Your task to perform on an android device: Open sound settings Image 0: 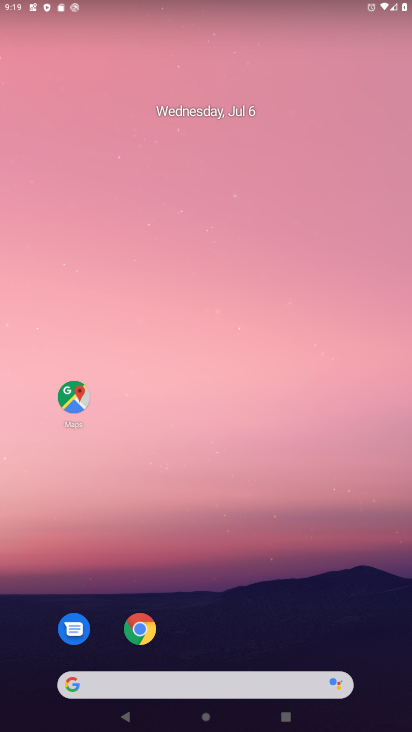
Step 0: drag from (70, 500) to (298, 30)
Your task to perform on an android device: Open sound settings Image 1: 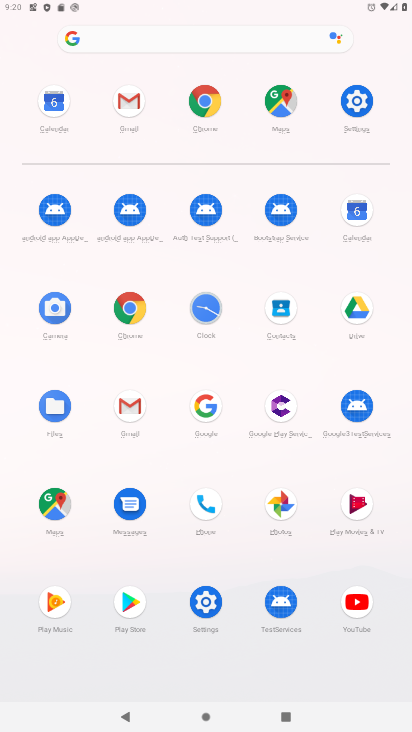
Step 1: click (370, 104)
Your task to perform on an android device: Open sound settings Image 2: 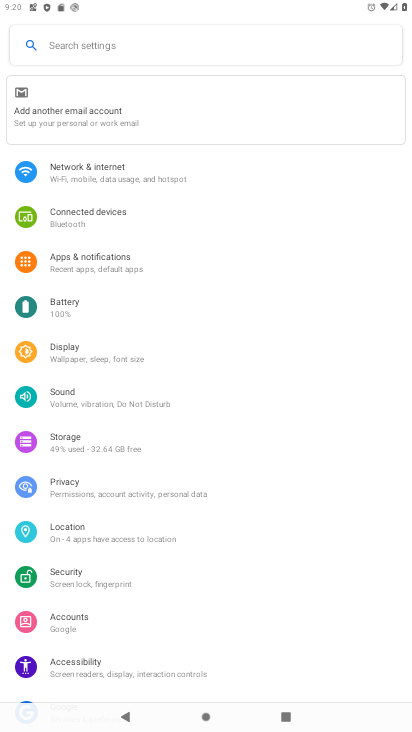
Step 2: click (95, 402)
Your task to perform on an android device: Open sound settings Image 3: 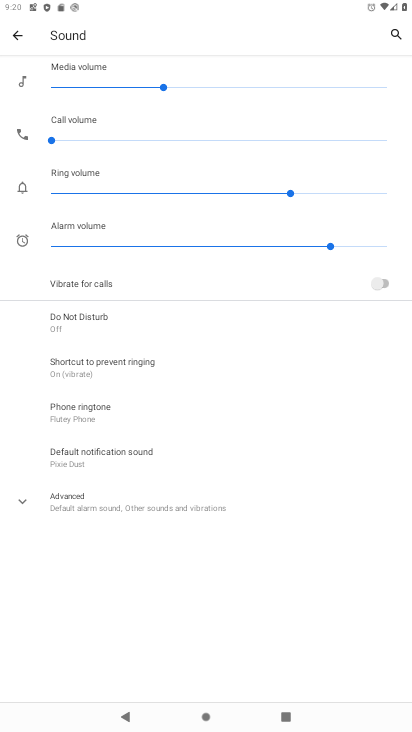
Step 3: task complete